Your task to perform on an android device: Go to settings Image 0: 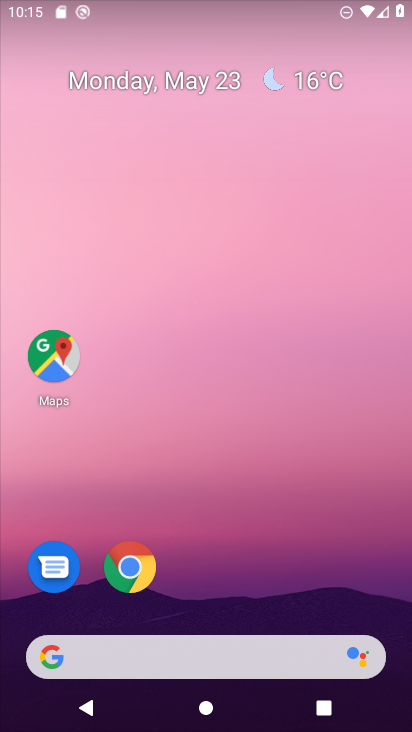
Step 0: drag from (217, 577) to (116, 12)
Your task to perform on an android device: Go to settings Image 1: 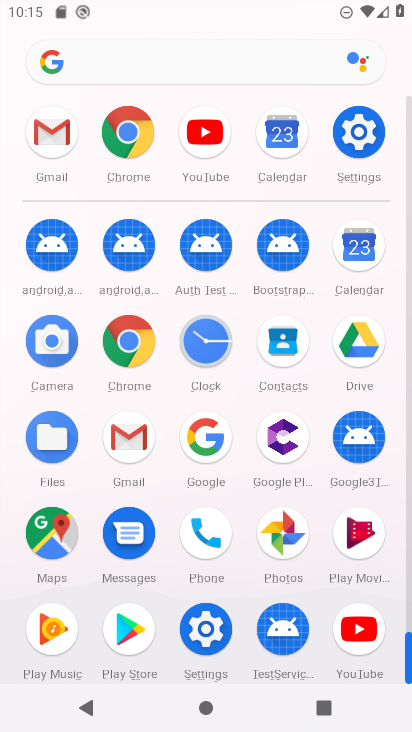
Step 1: click (200, 636)
Your task to perform on an android device: Go to settings Image 2: 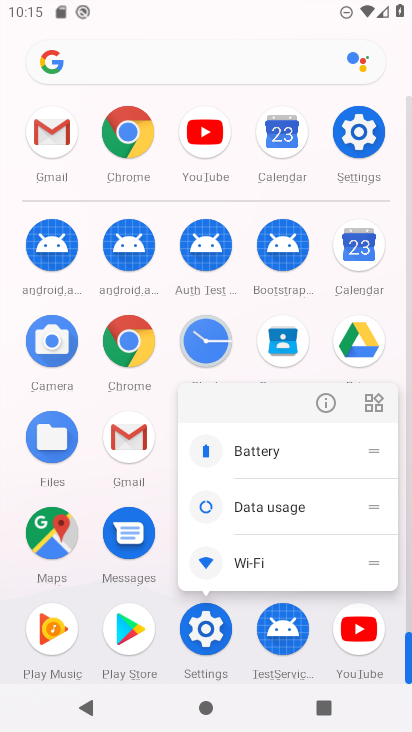
Step 2: click (328, 407)
Your task to perform on an android device: Go to settings Image 3: 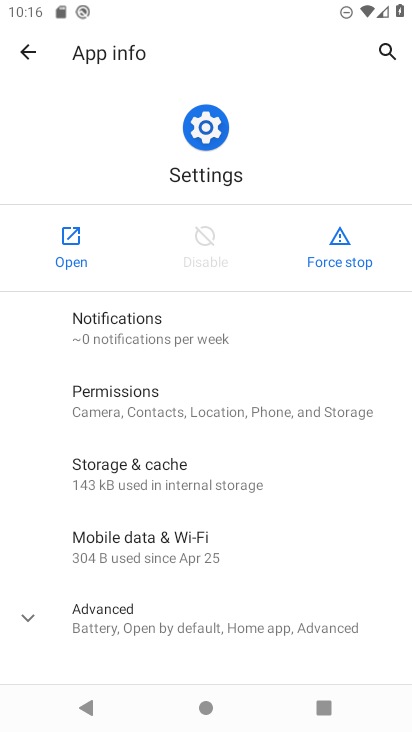
Step 3: click (69, 241)
Your task to perform on an android device: Go to settings Image 4: 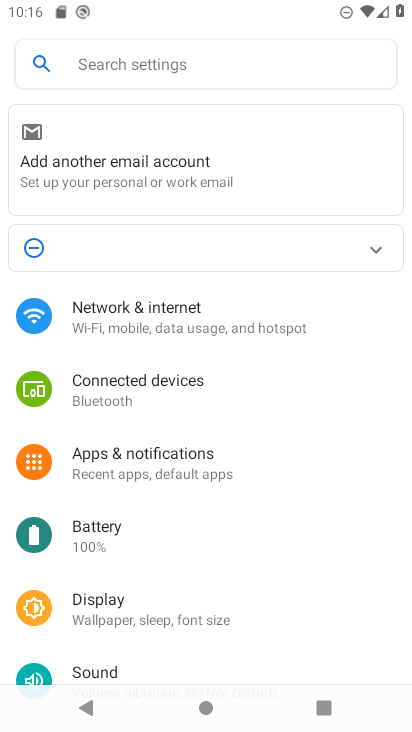
Step 4: task complete